Your task to perform on an android device: See recent photos Image 0: 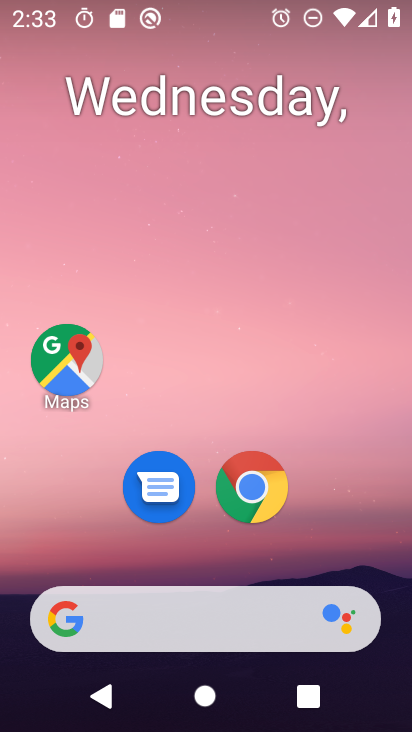
Step 0: drag from (189, 508) to (246, 33)
Your task to perform on an android device: See recent photos Image 1: 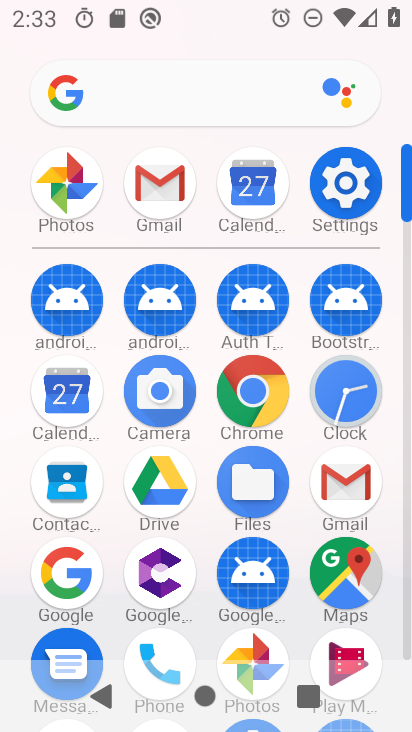
Step 1: click (262, 645)
Your task to perform on an android device: See recent photos Image 2: 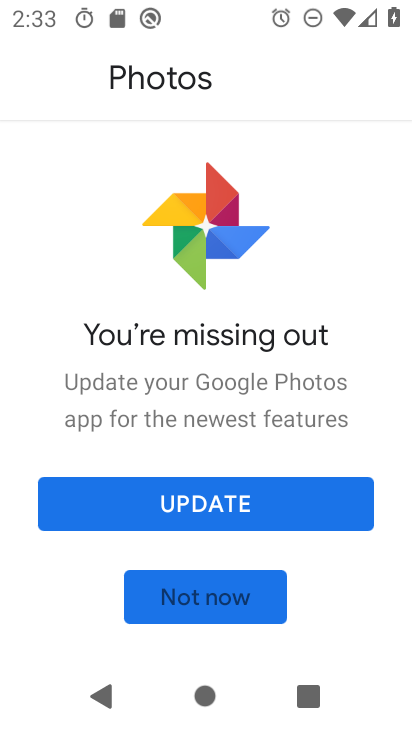
Step 2: click (185, 592)
Your task to perform on an android device: See recent photos Image 3: 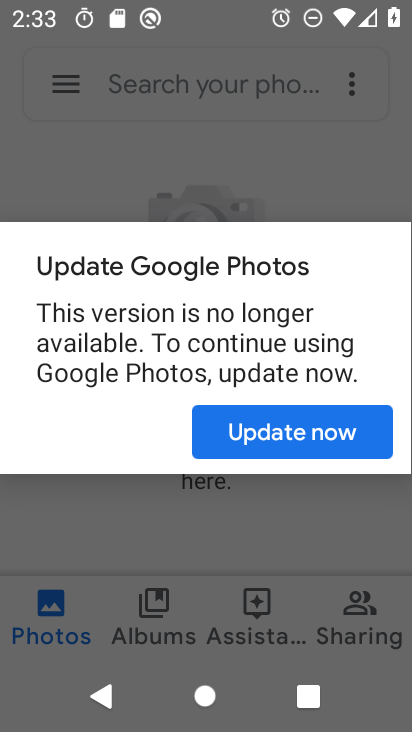
Step 3: click (270, 423)
Your task to perform on an android device: See recent photos Image 4: 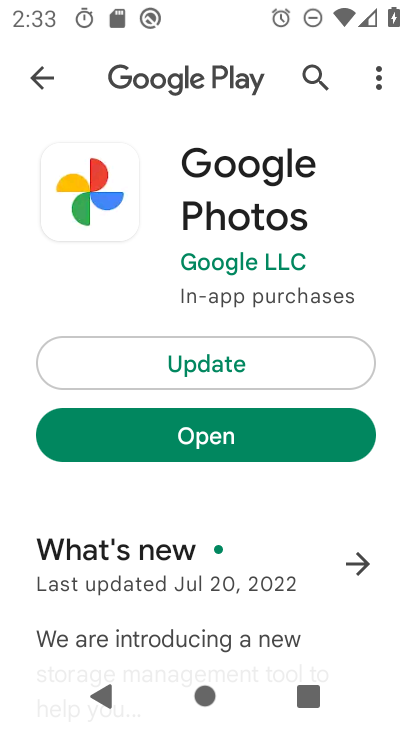
Step 4: press back button
Your task to perform on an android device: See recent photos Image 5: 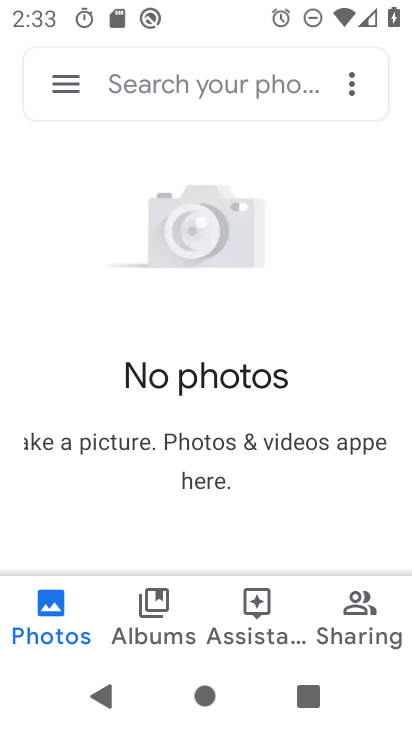
Step 5: click (33, 600)
Your task to perform on an android device: See recent photos Image 6: 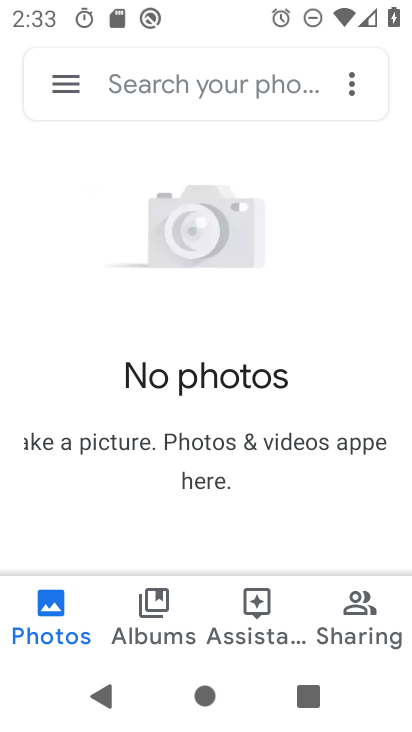
Step 6: task complete